Your task to perform on an android device: Show me recent news Image 0: 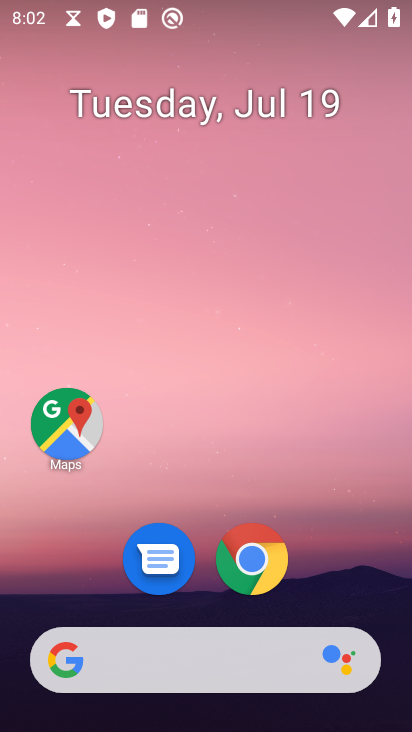
Step 0: click (169, 667)
Your task to perform on an android device: Show me recent news Image 1: 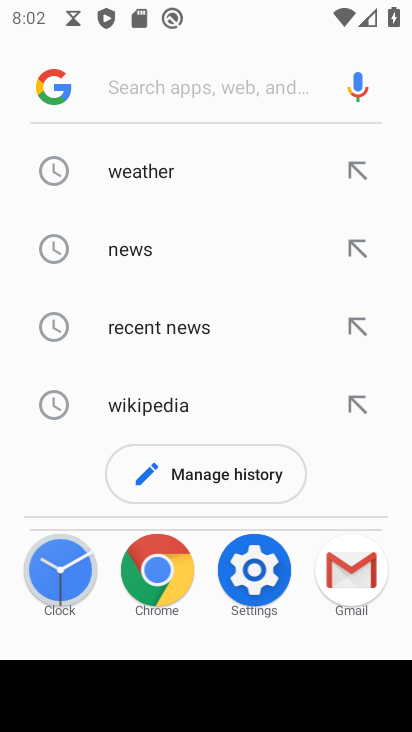
Step 1: click (166, 308)
Your task to perform on an android device: Show me recent news Image 2: 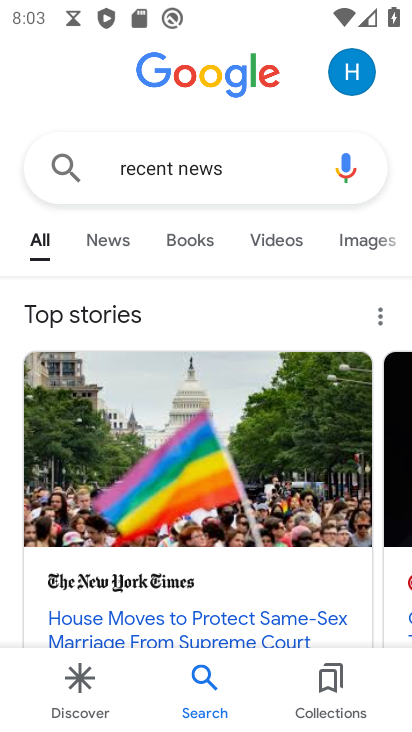
Step 2: task complete